Your task to perform on an android device: turn on javascript in the chrome app Image 0: 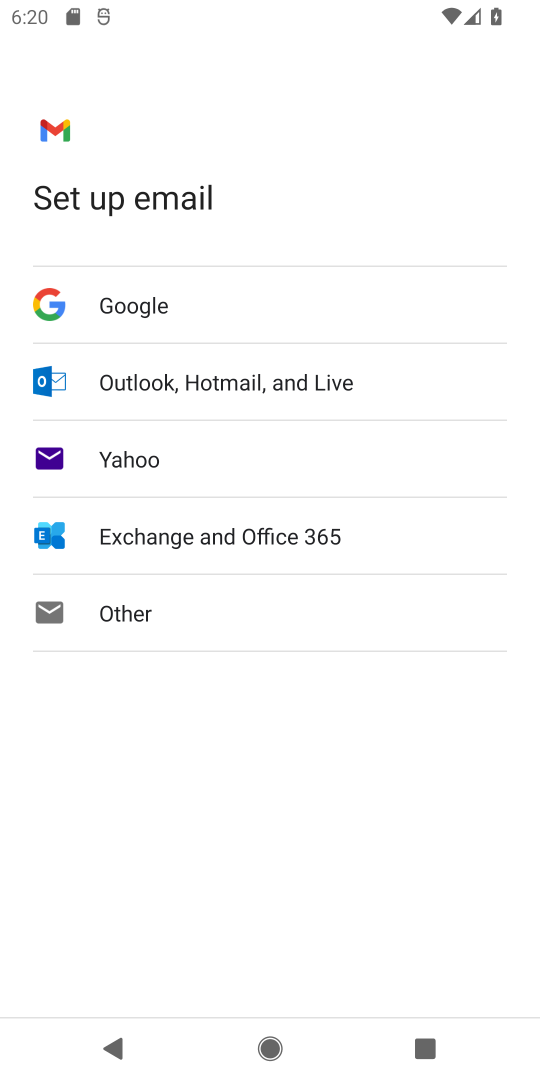
Step 0: press home button
Your task to perform on an android device: turn on javascript in the chrome app Image 1: 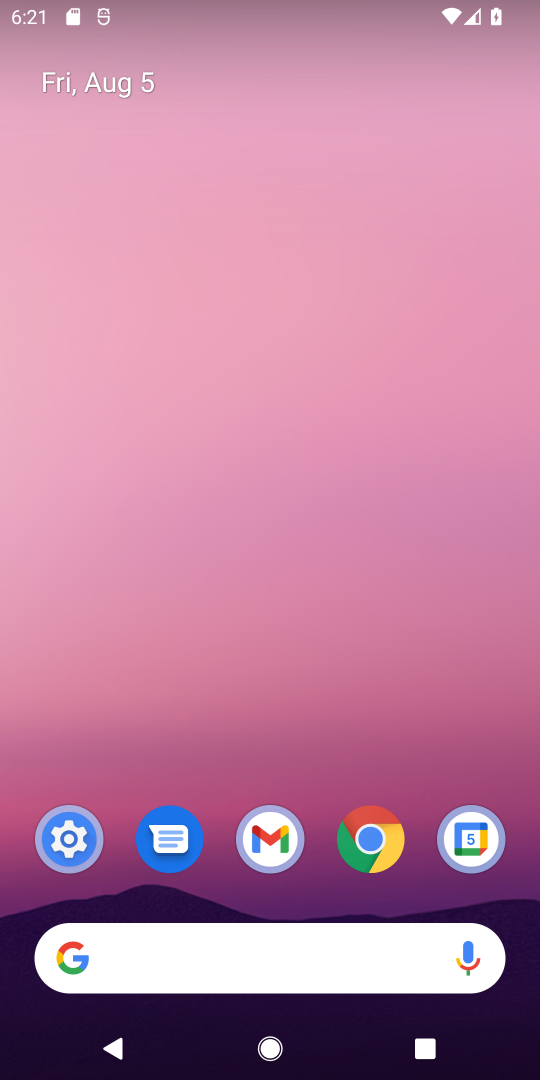
Step 1: click (349, 824)
Your task to perform on an android device: turn on javascript in the chrome app Image 2: 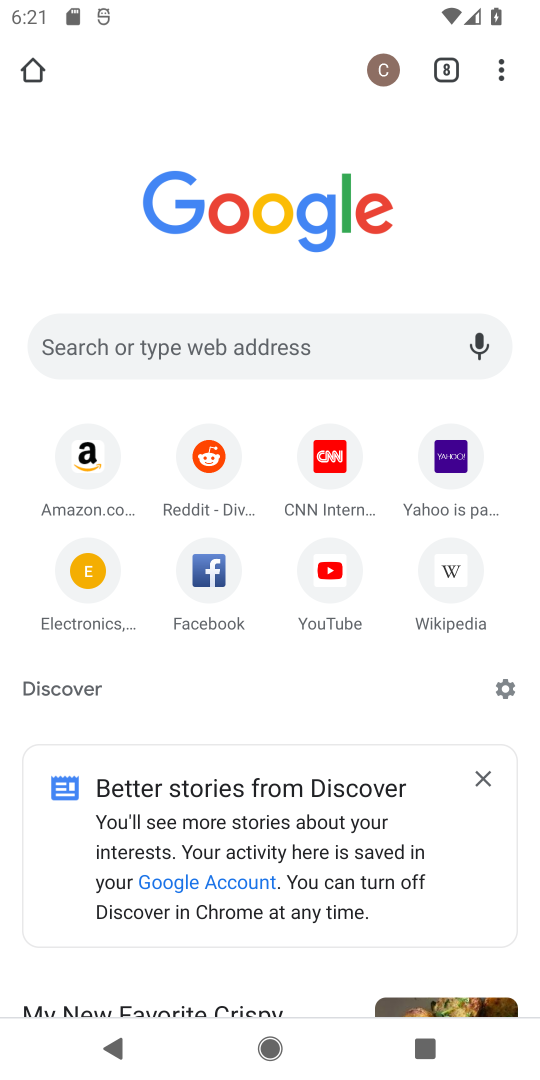
Step 2: click (488, 63)
Your task to perform on an android device: turn on javascript in the chrome app Image 3: 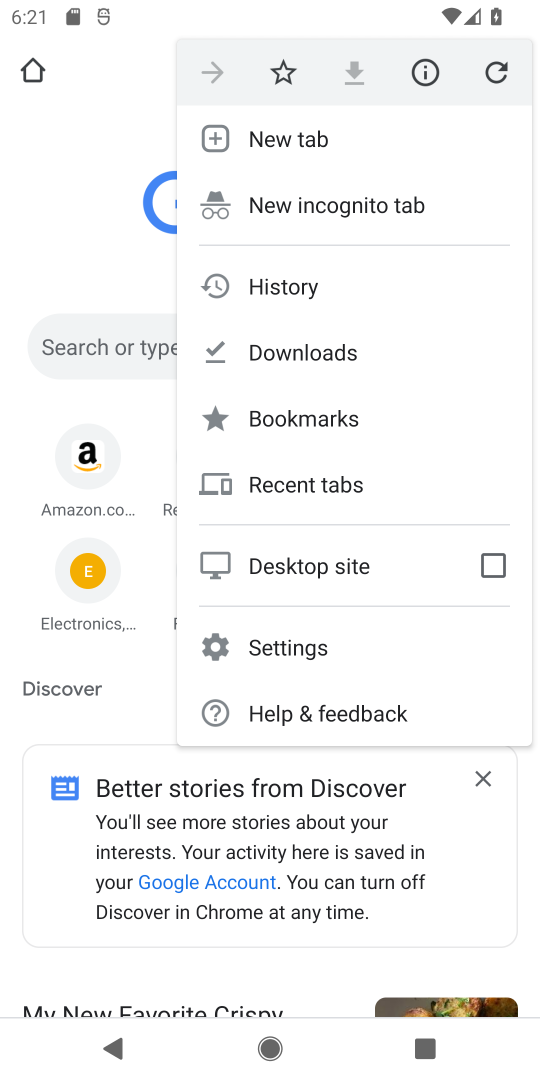
Step 3: click (322, 644)
Your task to perform on an android device: turn on javascript in the chrome app Image 4: 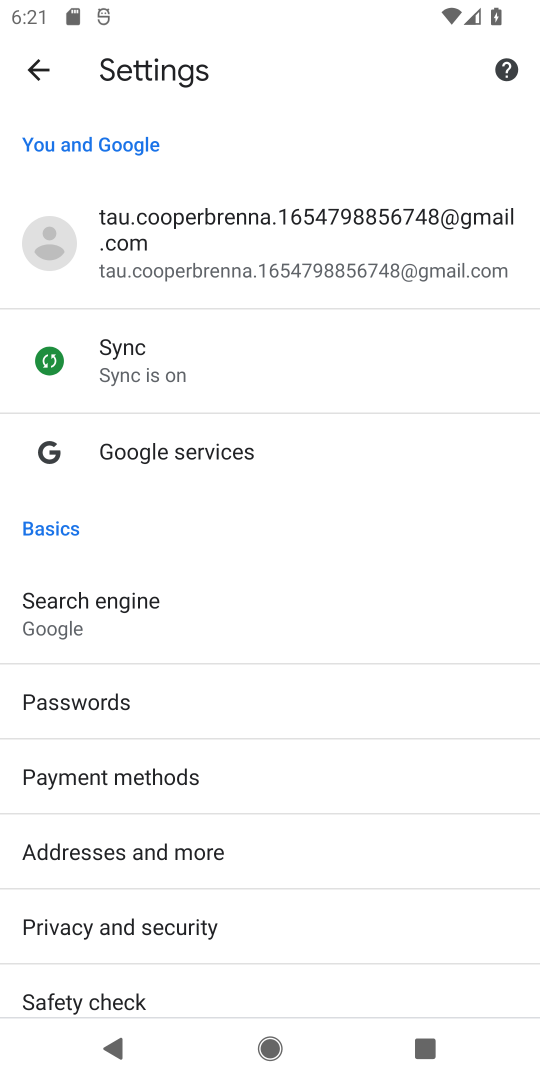
Step 4: drag from (235, 911) to (321, 445)
Your task to perform on an android device: turn on javascript in the chrome app Image 5: 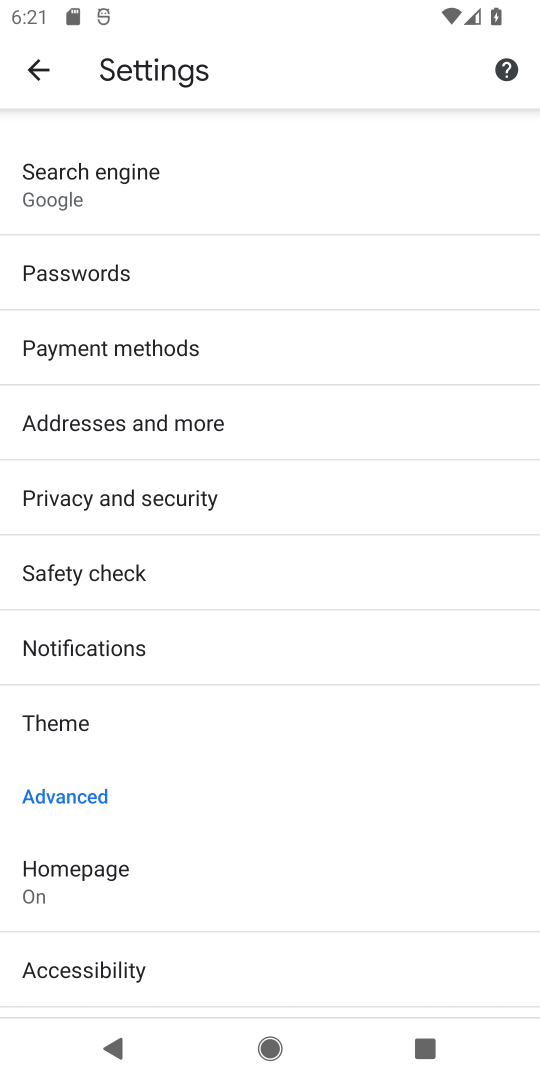
Step 5: drag from (235, 723) to (305, 283)
Your task to perform on an android device: turn on javascript in the chrome app Image 6: 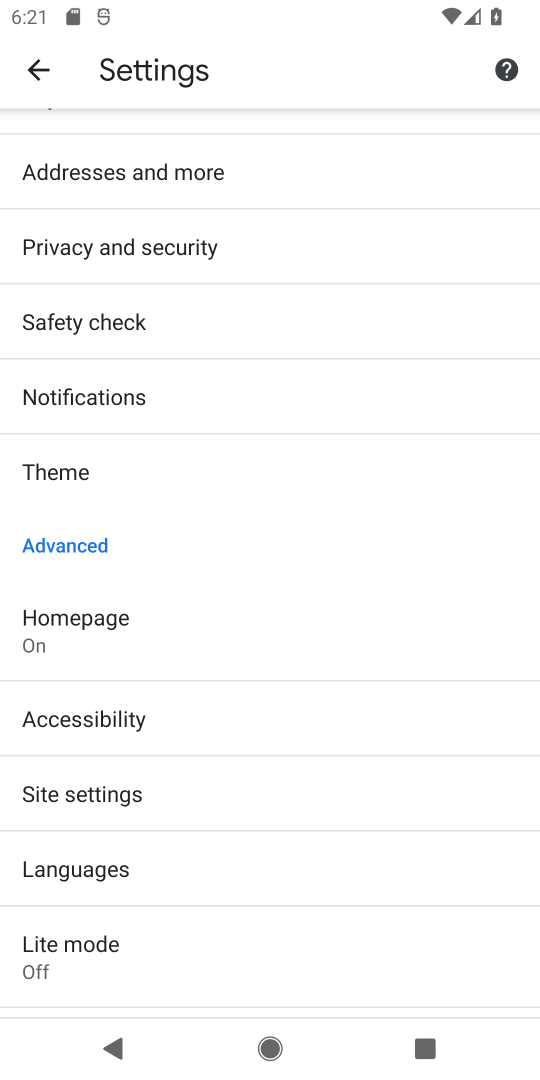
Step 6: click (137, 805)
Your task to perform on an android device: turn on javascript in the chrome app Image 7: 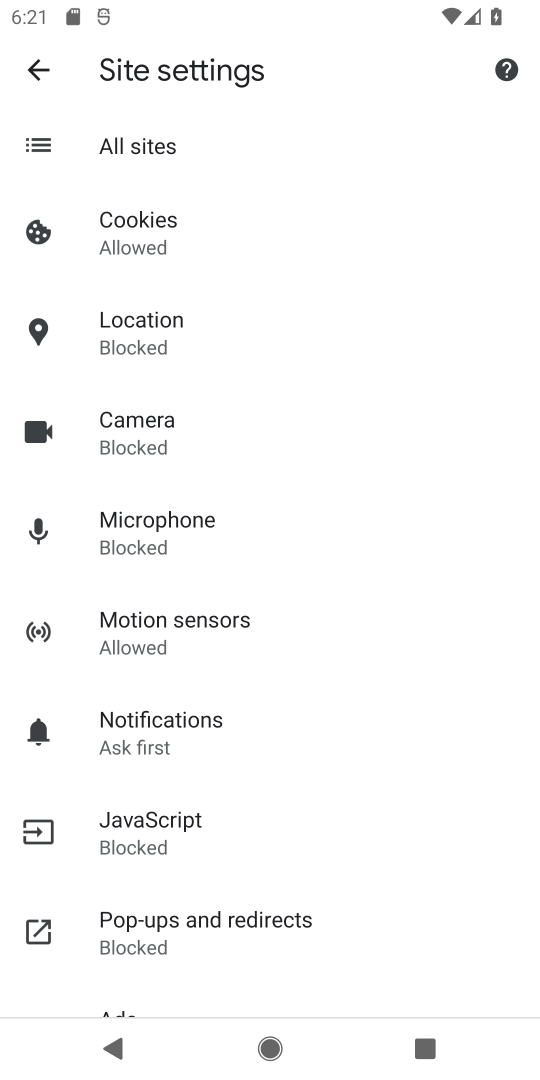
Step 7: click (212, 849)
Your task to perform on an android device: turn on javascript in the chrome app Image 8: 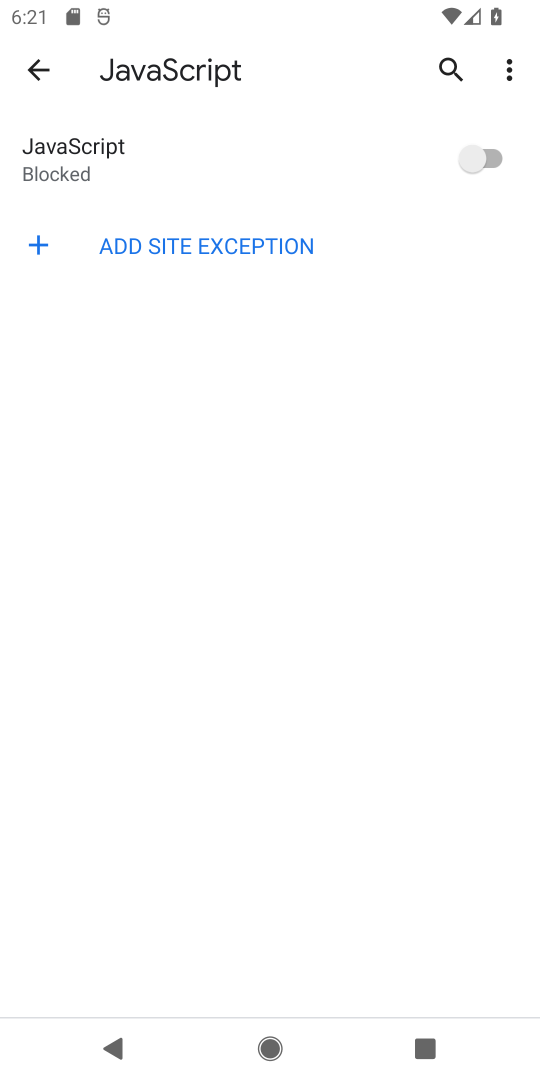
Step 8: click (506, 153)
Your task to perform on an android device: turn on javascript in the chrome app Image 9: 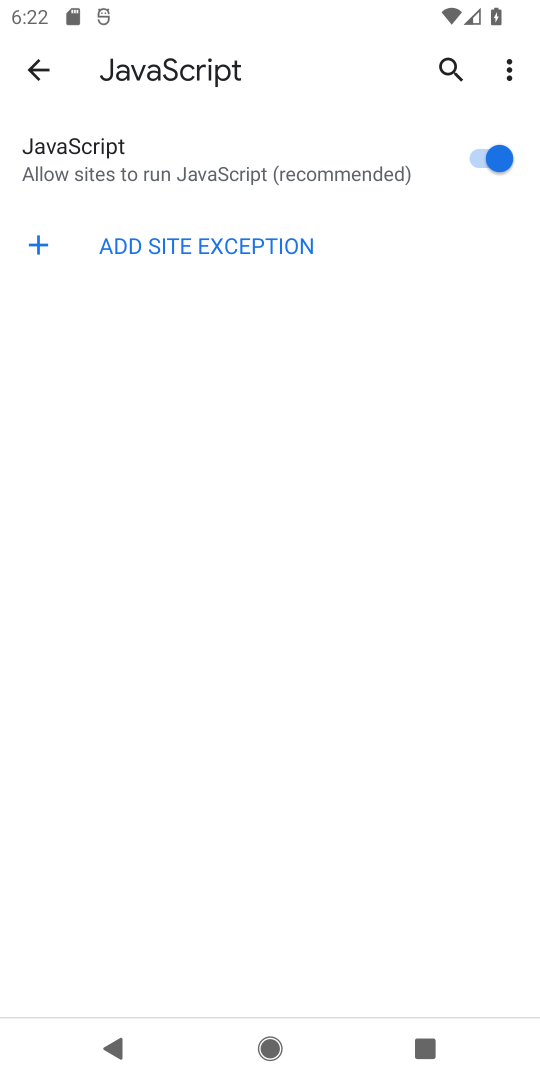
Step 9: task complete